Your task to perform on an android device: Check the weather Image 0: 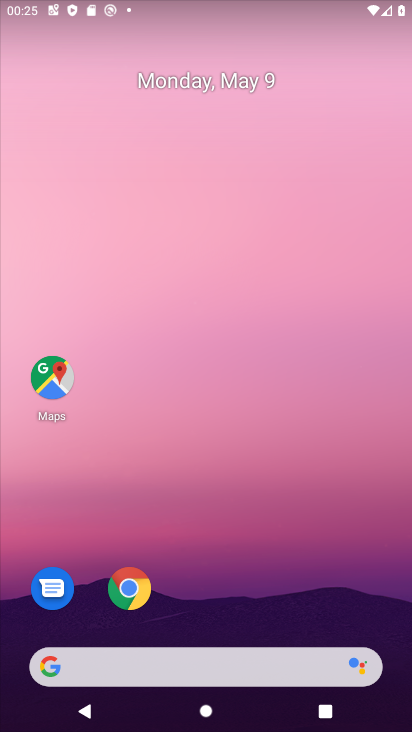
Step 0: click (231, 682)
Your task to perform on an android device: Check the weather Image 1: 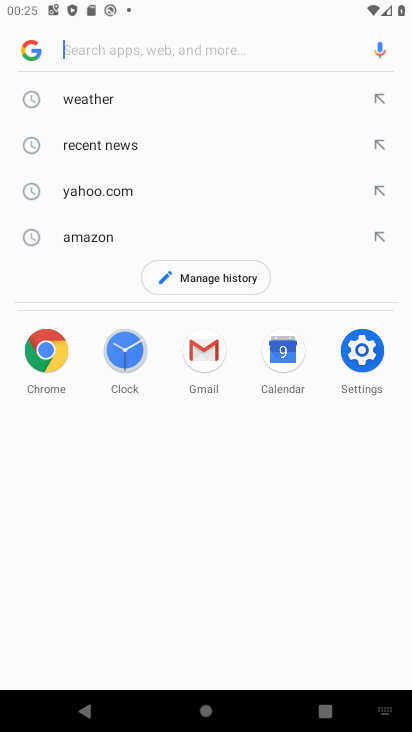
Step 1: click (84, 100)
Your task to perform on an android device: Check the weather Image 2: 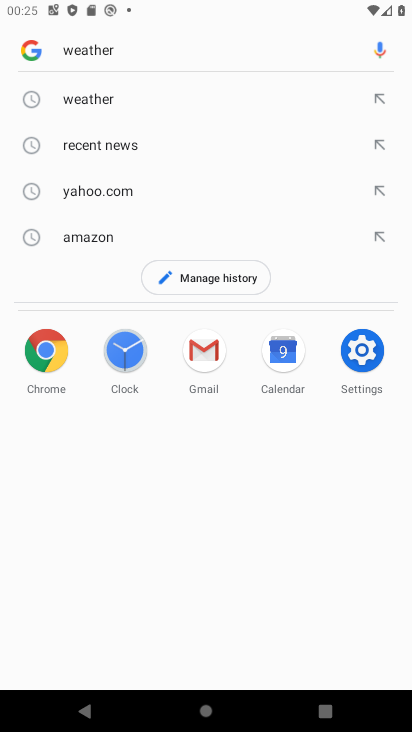
Step 2: click (95, 107)
Your task to perform on an android device: Check the weather Image 3: 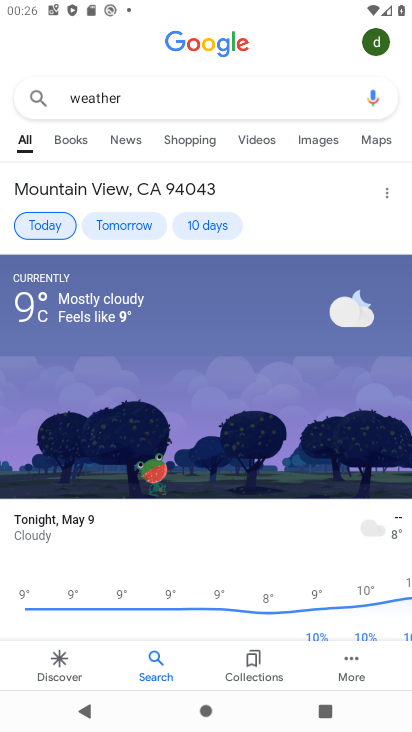
Step 3: task complete